Your task to perform on an android device: Go to location settings Image 0: 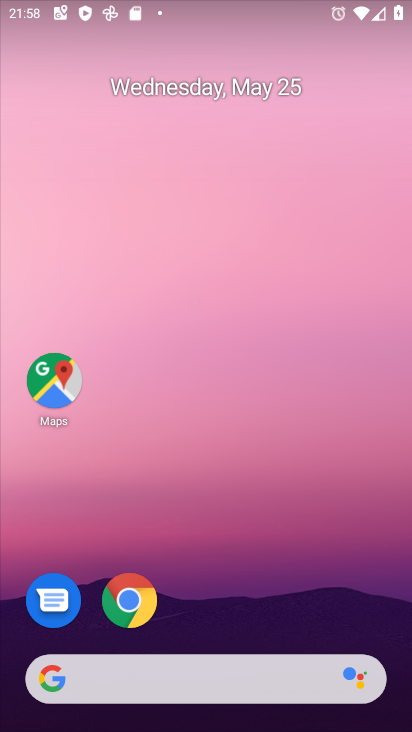
Step 0: drag from (349, 567) to (332, 201)
Your task to perform on an android device: Go to location settings Image 1: 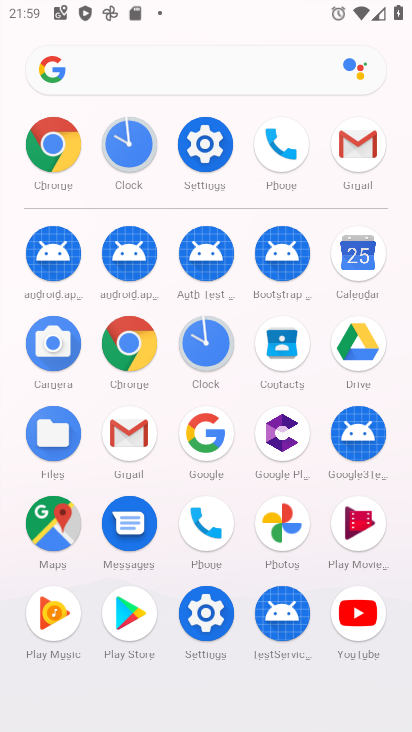
Step 1: click (209, 638)
Your task to perform on an android device: Go to location settings Image 2: 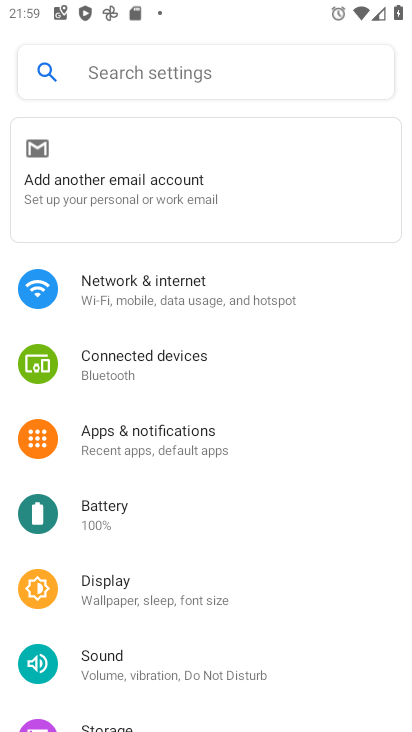
Step 2: drag from (213, 647) to (300, 398)
Your task to perform on an android device: Go to location settings Image 3: 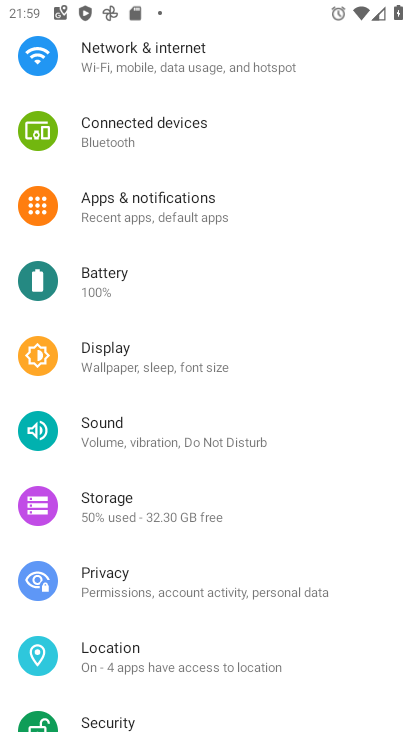
Step 3: click (256, 647)
Your task to perform on an android device: Go to location settings Image 4: 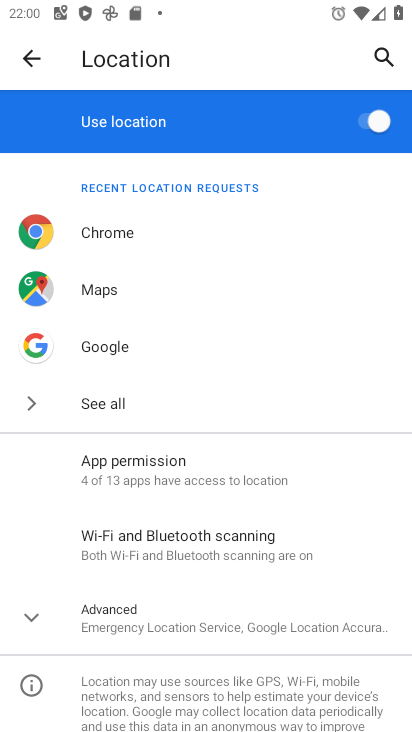
Step 4: task complete